Your task to perform on an android device: Open Android settings Image 0: 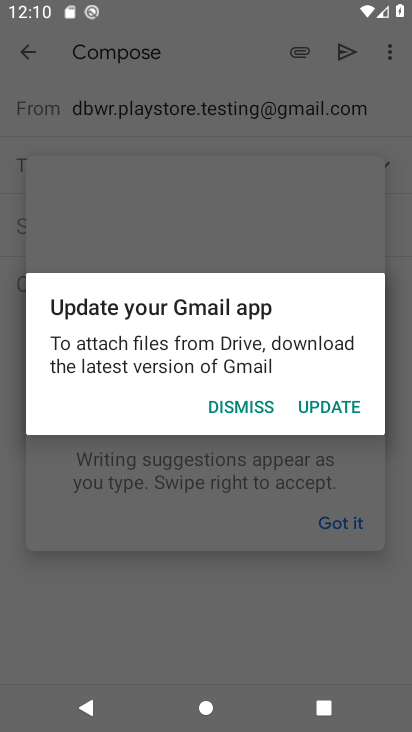
Step 0: press home button
Your task to perform on an android device: Open Android settings Image 1: 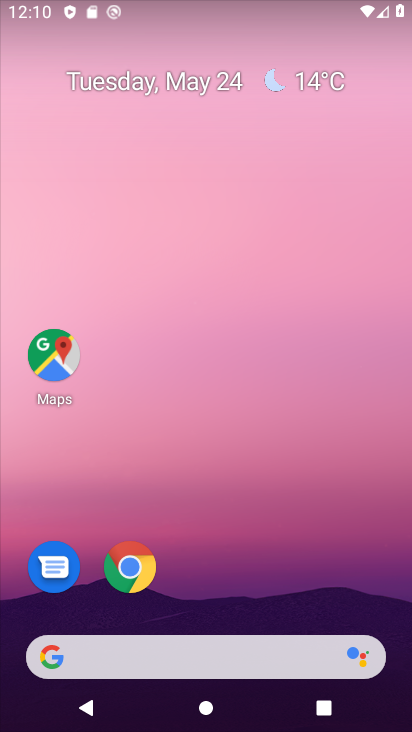
Step 1: drag from (236, 659) to (260, 5)
Your task to perform on an android device: Open Android settings Image 2: 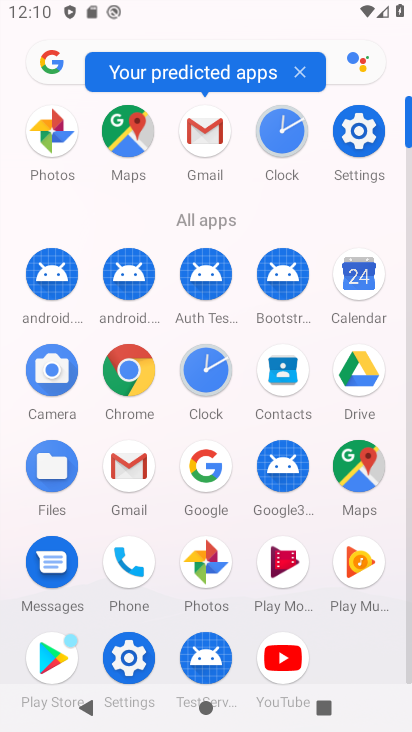
Step 2: click (348, 140)
Your task to perform on an android device: Open Android settings Image 3: 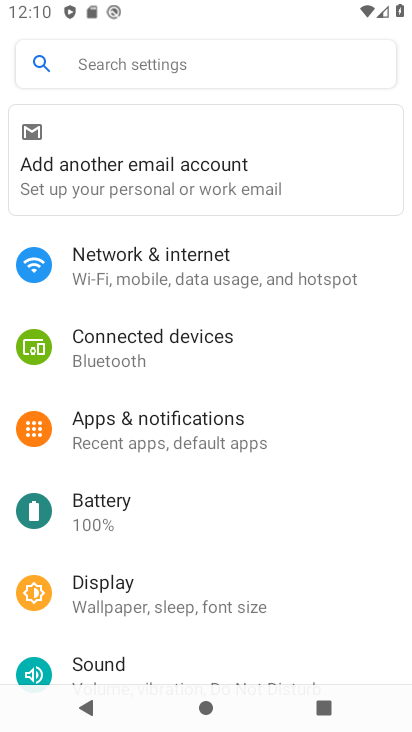
Step 3: task complete